Your task to perform on an android device: turn pop-ups on in chrome Image 0: 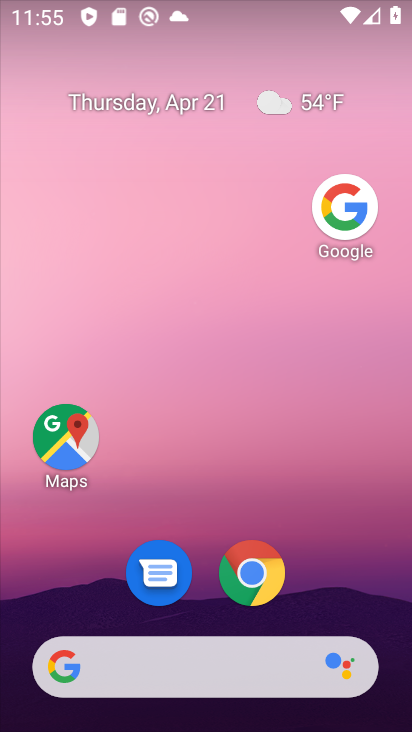
Step 0: press home button
Your task to perform on an android device: turn pop-ups on in chrome Image 1: 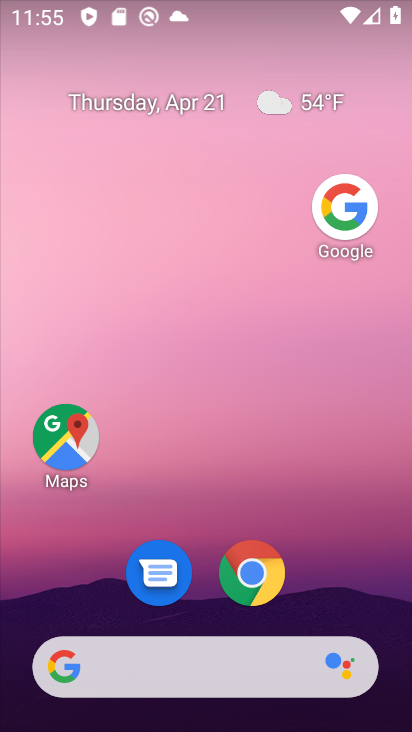
Step 1: drag from (117, 664) to (268, 244)
Your task to perform on an android device: turn pop-ups on in chrome Image 2: 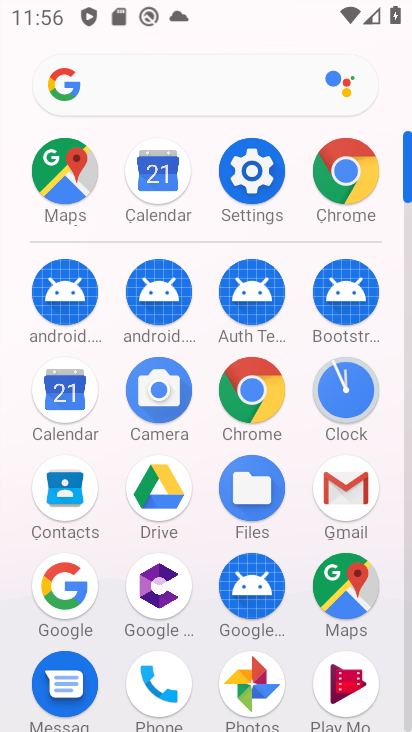
Step 2: click (342, 186)
Your task to perform on an android device: turn pop-ups on in chrome Image 3: 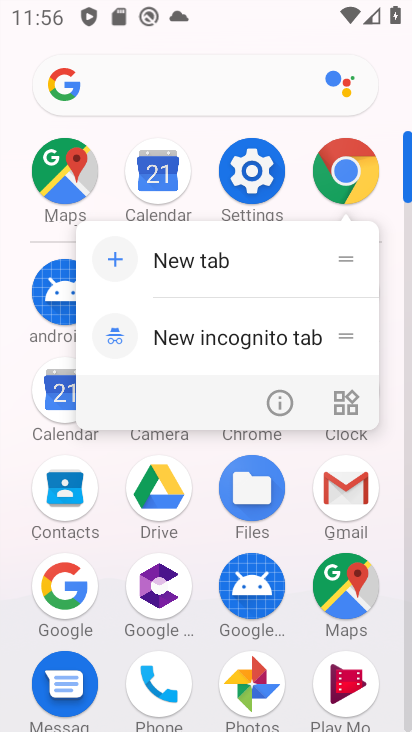
Step 3: click (345, 174)
Your task to perform on an android device: turn pop-ups on in chrome Image 4: 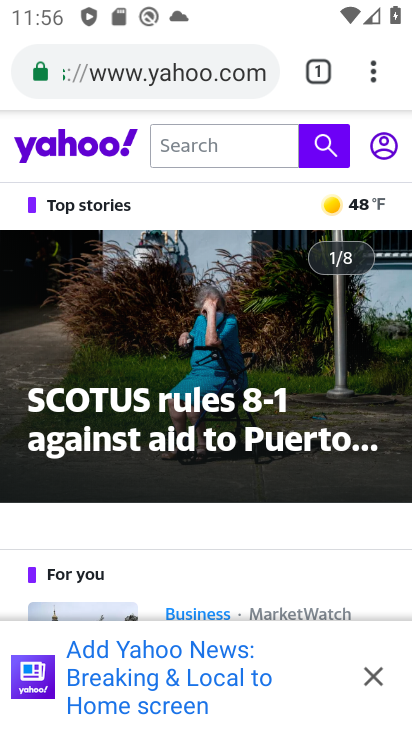
Step 4: click (368, 83)
Your task to perform on an android device: turn pop-ups on in chrome Image 5: 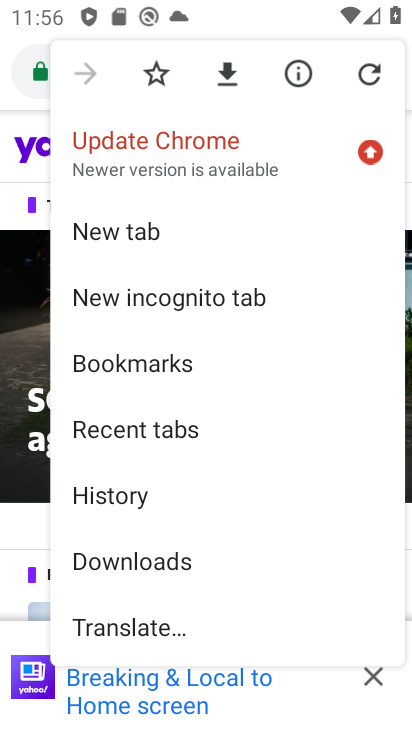
Step 5: drag from (189, 557) to (359, 159)
Your task to perform on an android device: turn pop-ups on in chrome Image 6: 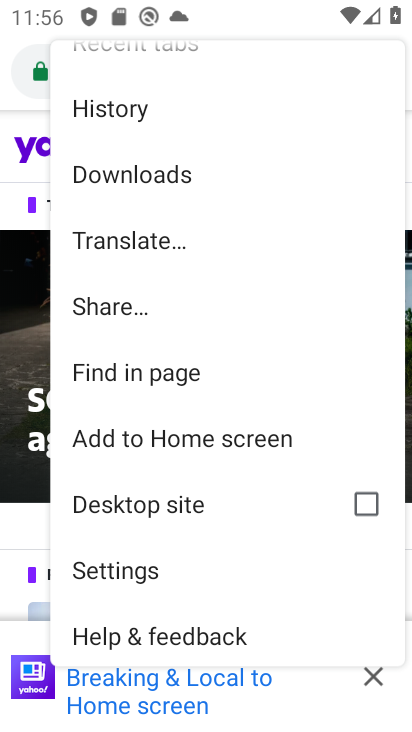
Step 6: click (131, 573)
Your task to perform on an android device: turn pop-ups on in chrome Image 7: 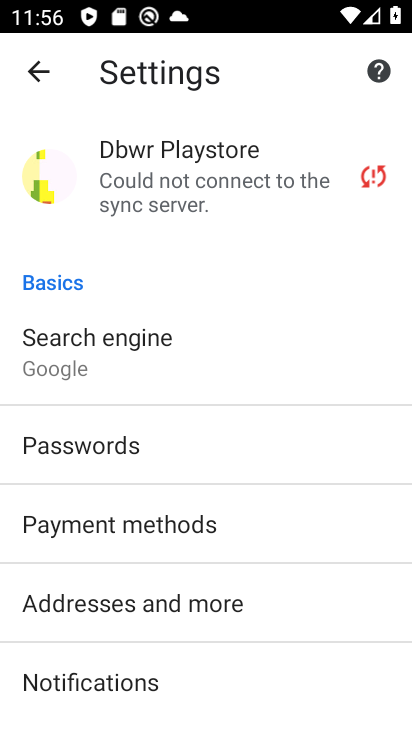
Step 7: drag from (142, 600) to (296, 150)
Your task to perform on an android device: turn pop-ups on in chrome Image 8: 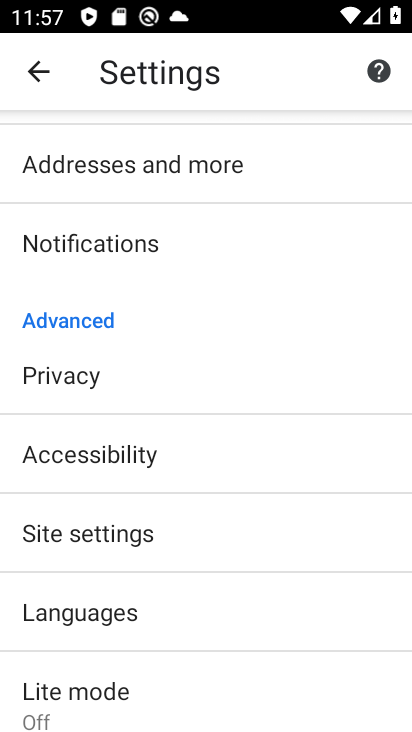
Step 8: drag from (158, 624) to (268, 299)
Your task to perform on an android device: turn pop-ups on in chrome Image 9: 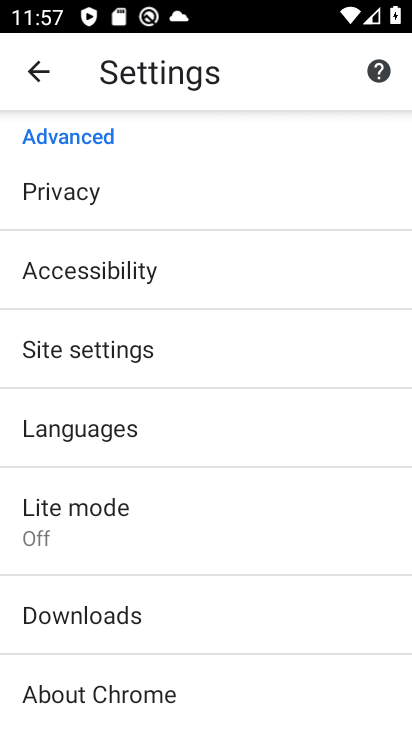
Step 9: click (109, 357)
Your task to perform on an android device: turn pop-ups on in chrome Image 10: 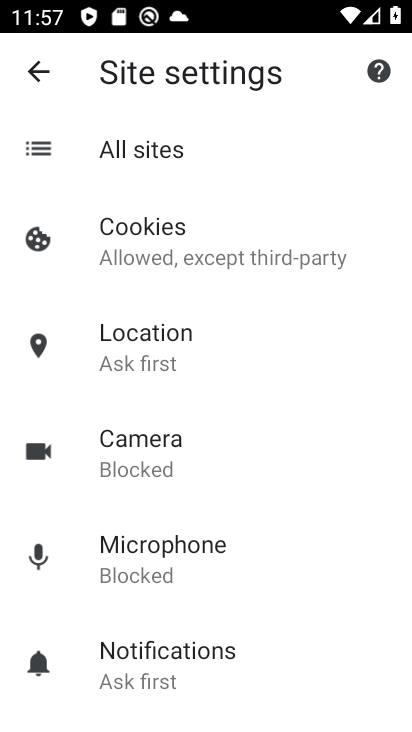
Step 10: drag from (226, 613) to (314, 273)
Your task to perform on an android device: turn pop-ups on in chrome Image 11: 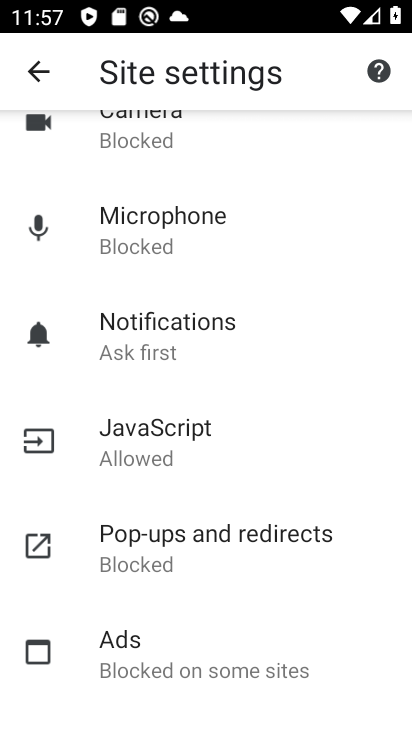
Step 11: click (160, 539)
Your task to perform on an android device: turn pop-ups on in chrome Image 12: 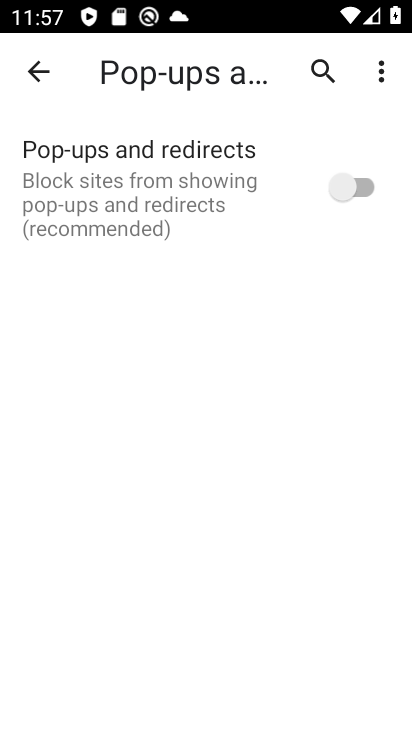
Step 12: click (358, 191)
Your task to perform on an android device: turn pop-ups on in chrome Image 13: 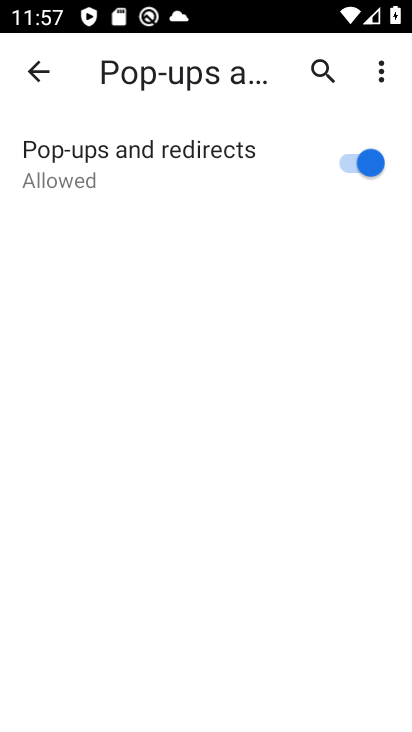
Step 13: task complete